Your task to perform on an android device: What's on my calendar tomorrow? Image 0: 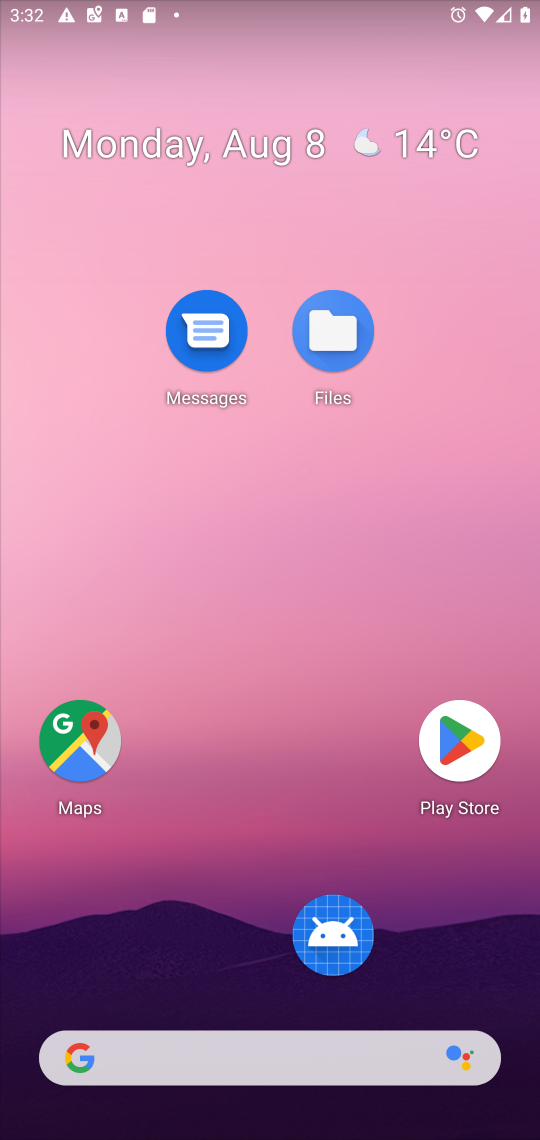
Step 0: drag from (266, 1059) to (219, 357)
Your task to perform on an android device: What's on my calendar tomorrow? Image 1: 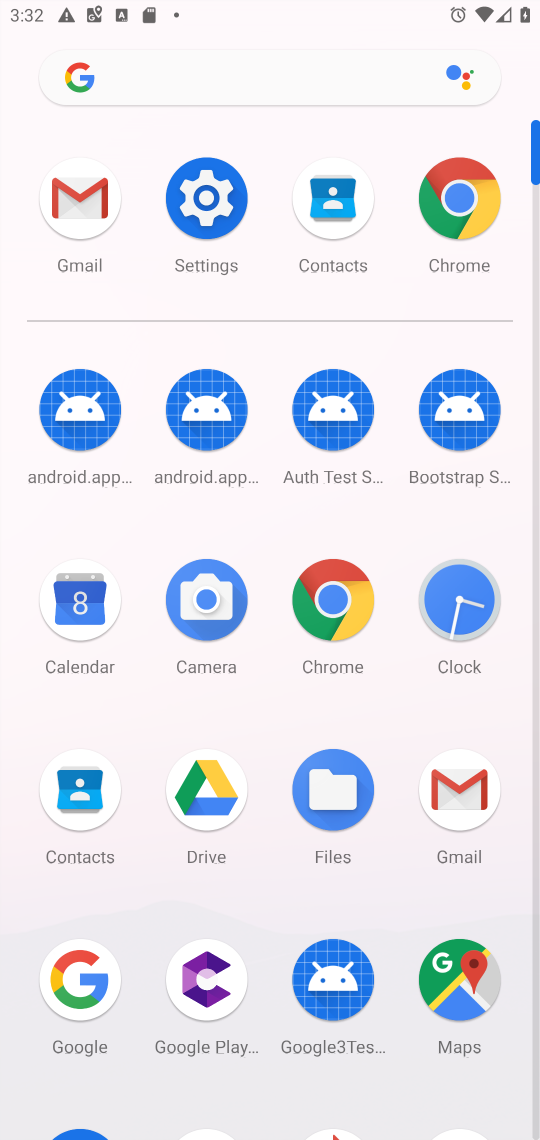
Step 1: click (92, 613)
Your task to perform on an android device: What's on my calendar tomorrow? Image 2: 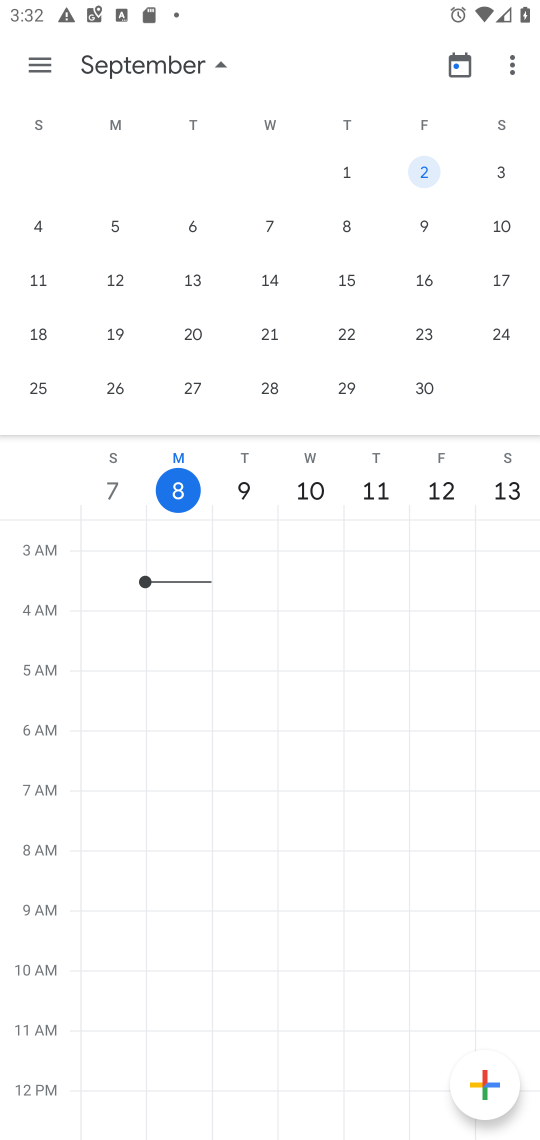
Step 2: drag from (69, 318) to (531, 386)
Your task to perform on an android device: What's on my calendar tomorrow? Image 3: 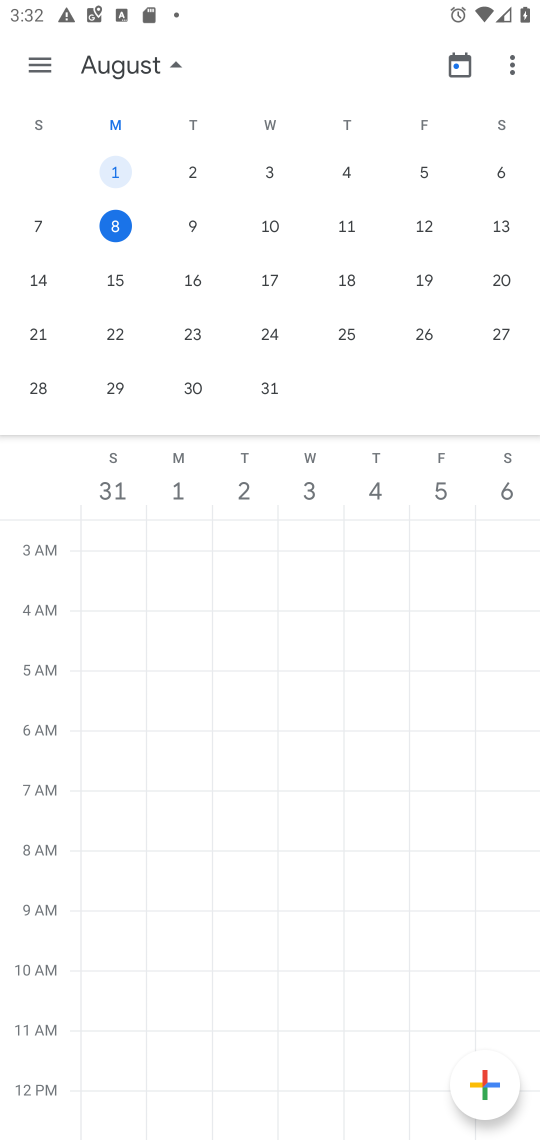
Step 3: click (193, 223)
Your task to perform on an android device: What's on my calendar tomorrow? Image 4: 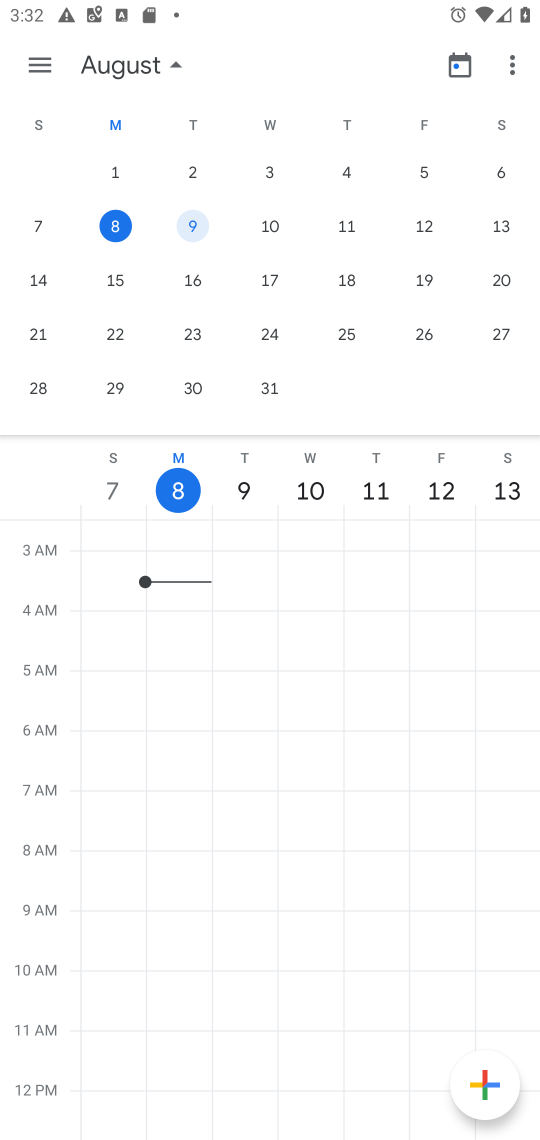
Step 4: task complete